Your task to perform on an android device: Open the calendar and show me this week's events Image 0: 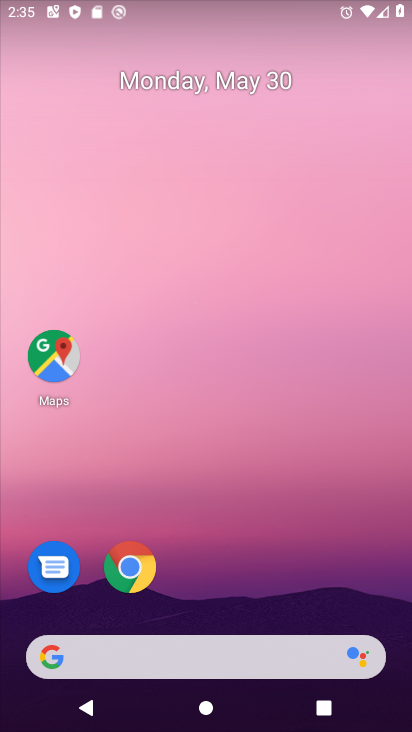
Step 0: drag from (191, 575) to (247, 58)
Your task to perform on an android device: Open the calendar and show me this week's events Image 1: 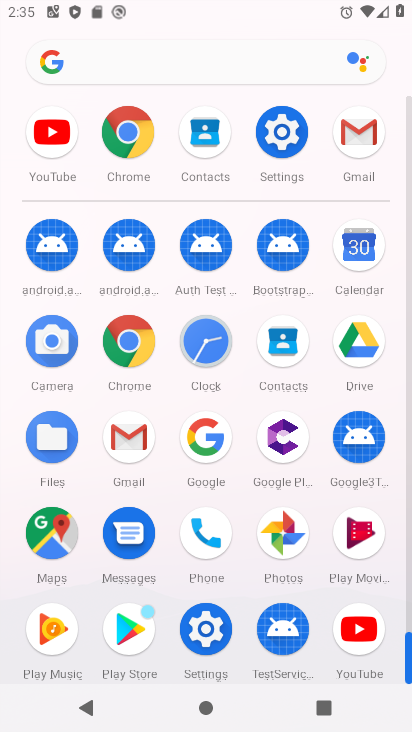
Step 1: click (366, 257)
Your task to perform on an android device: Open the calendar and show me this week's events Image 2: 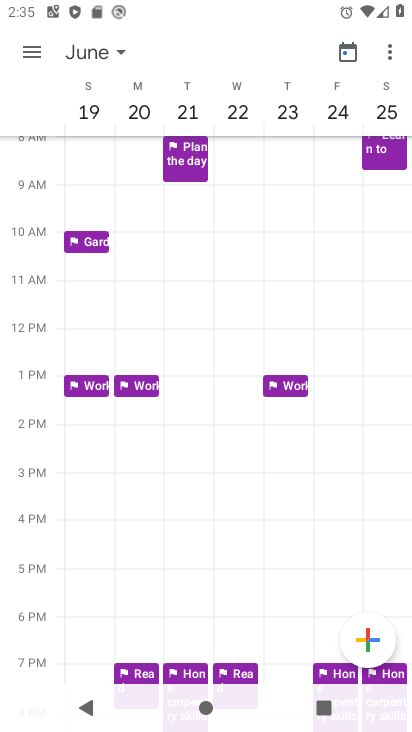
Step 2: task complete